Your task to perform on an android device: Open Google Maps and go to "Timeline" Image 0: 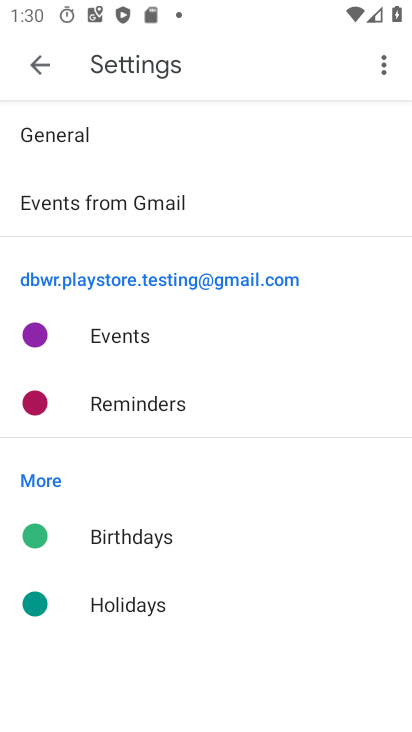
Step 0: press home button
Your task to perform on an android device: Open Google Maps and go to "Timeline" Image 1: 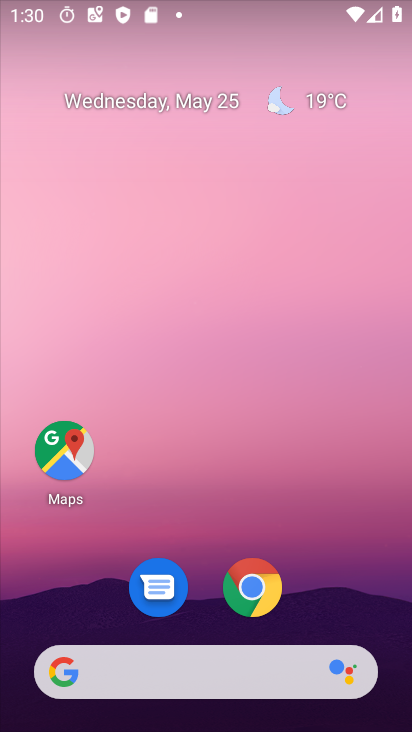
Step 1: drag from (225, 476) to (193, 62)
Your task to perform on an android device: Open Google Maps and go to "Timeline" Image 2: 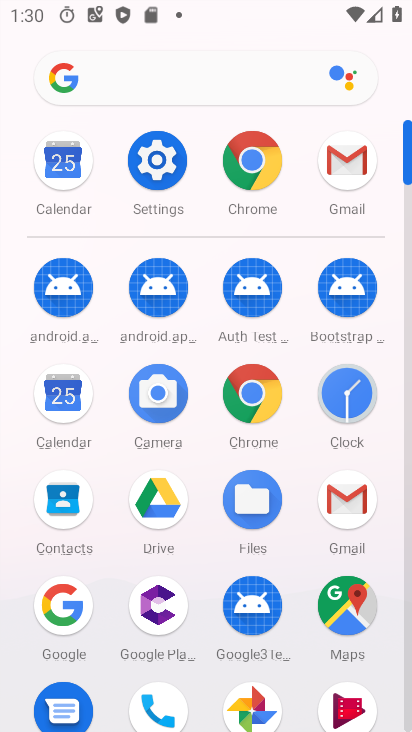
Step 2: click (340, 609)
Your task to perform on an android device: Open Google Maps and go to "Timeline" Image 3: 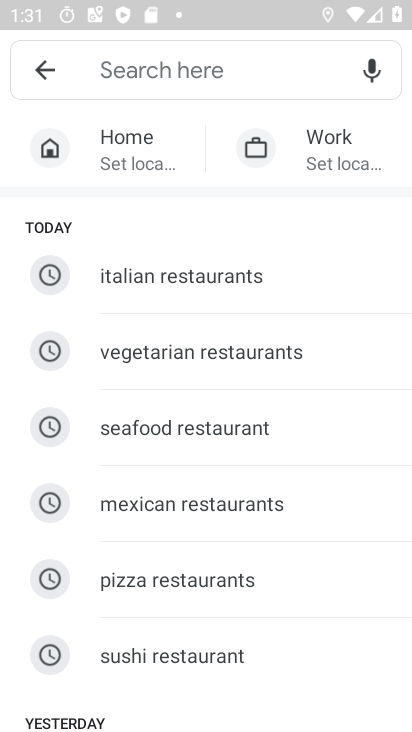
Step 3: click (48, 78)
Your task to perform on an android device: Open Google Maps and go to "Timeline" Image 4: 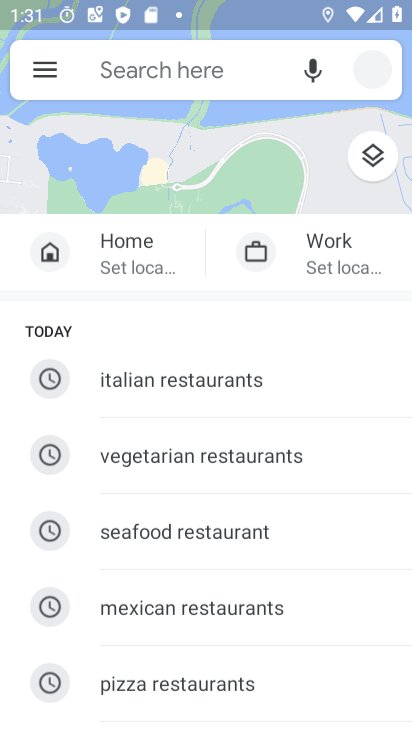
Step 4: click (40, 64)
Your task to perform on an android device: Open Google Maps and go to "Timeline" Image 5: 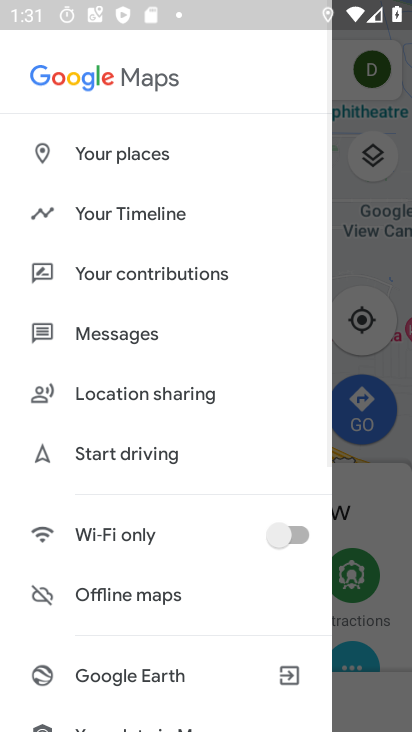
Step 5: click (152, 214)
Your task to perform on an android device: Open Google Maps and go to "Timeline" Image 6: 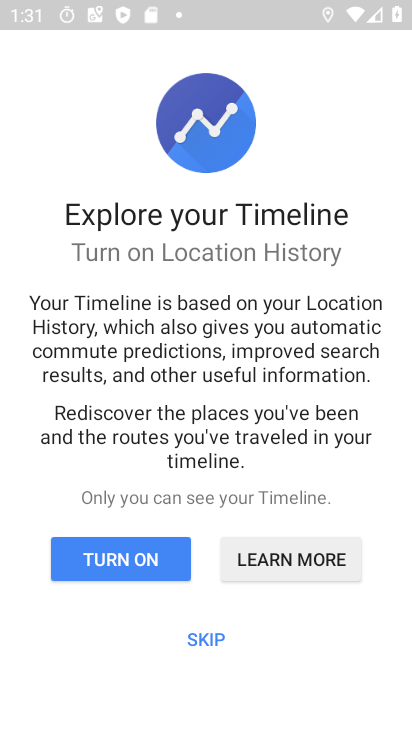
Step 6: click (210, 631)
Your task to perform on an android device: Open Google Maps and go to "Timeline" Image 7: 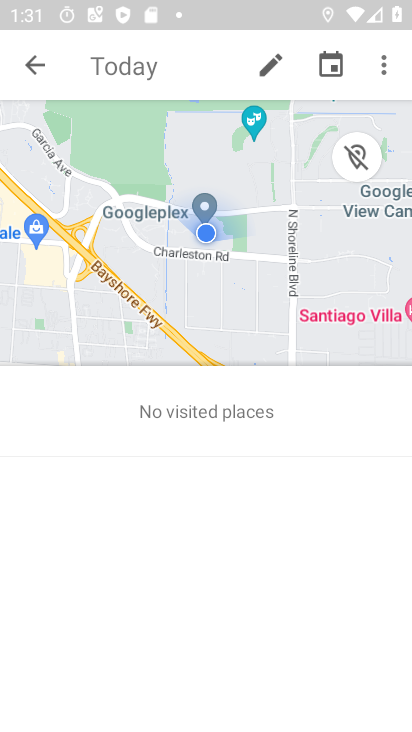
Step 7: task complete